Your task to perform on an android device: open chrome and create a bookmark for the current page Image 0: 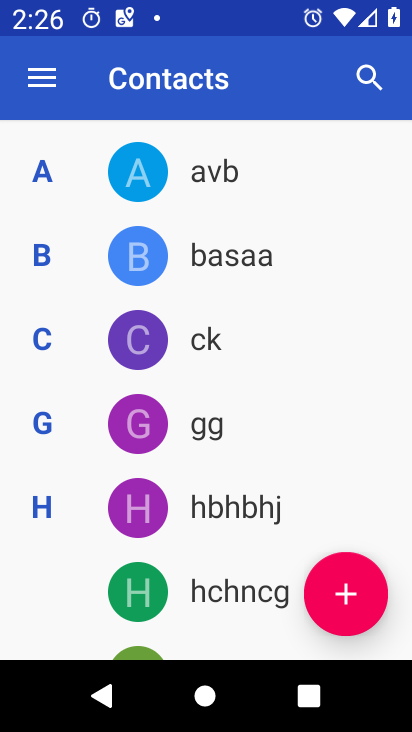
Step 0: press home button
Your task to perform on an android device: open chrome and create a bookmark for the current page Image 1: 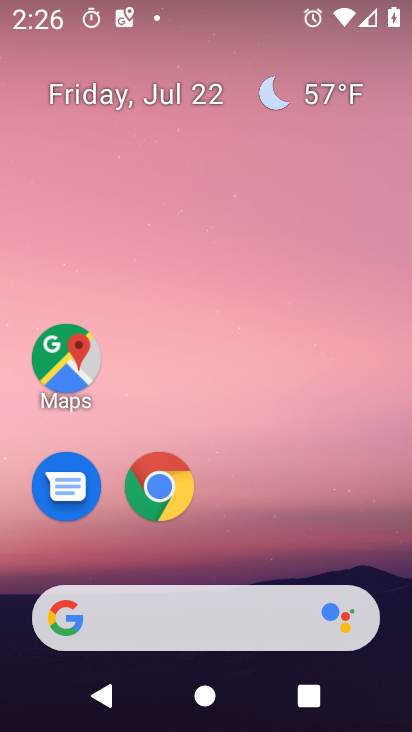
Step 1: drag from (342, 524) to (358, 82)
Your task to perform on an android device: open chrome and create a bookmark for the current page Image 2: 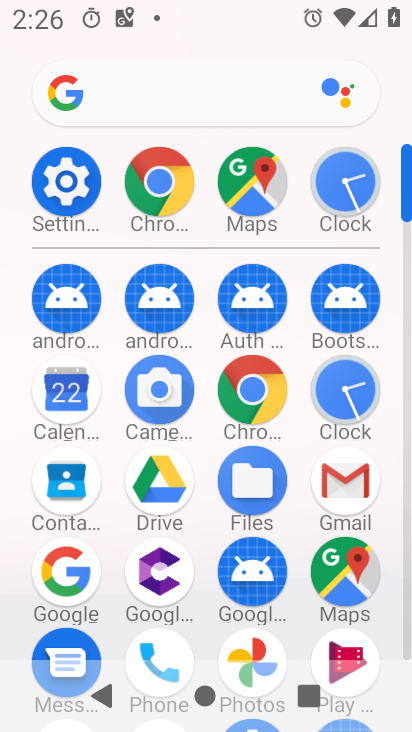
Step 2: click (256, 386)
Your task to perform on an android device: open chrome and create a bookmark for the current page Image 3: 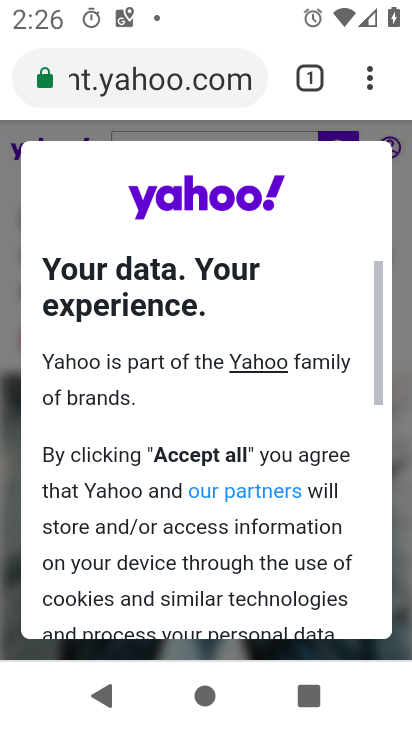
Step 3: click (368, 92)
Your task to perform on an android device: open chrome and create a bookmark for the current page Image 4: 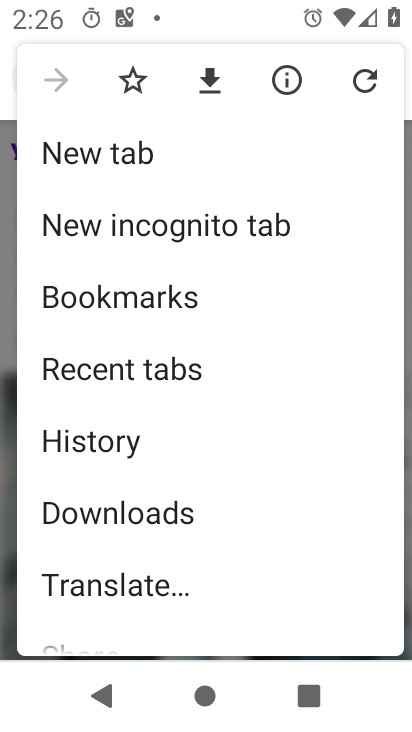
Step 4: click (131, 83)
Your task to perform on an android device: open chrome and create a bookmark for the current page Image 5: 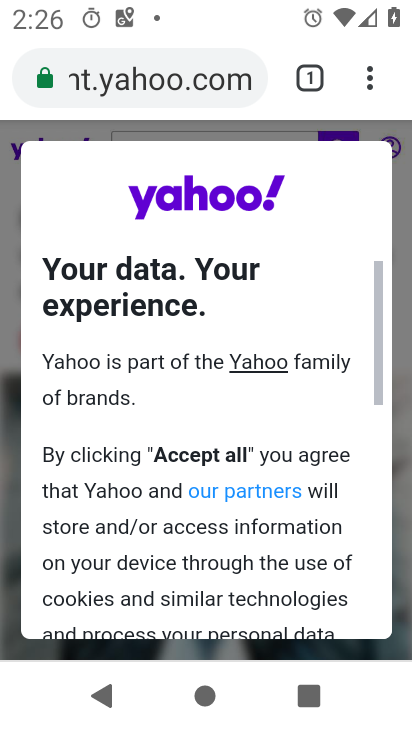
Step 5: task complete